Your task to perform on an android device: find photos in the google photos app Image 0: 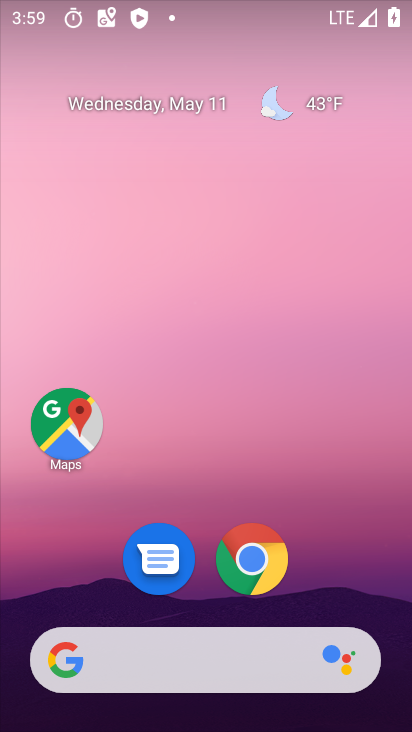
Step 0: drag from (330, 540) to (274, 64)
Your task to perform on an android device: find photos in the google photos app Image 1: 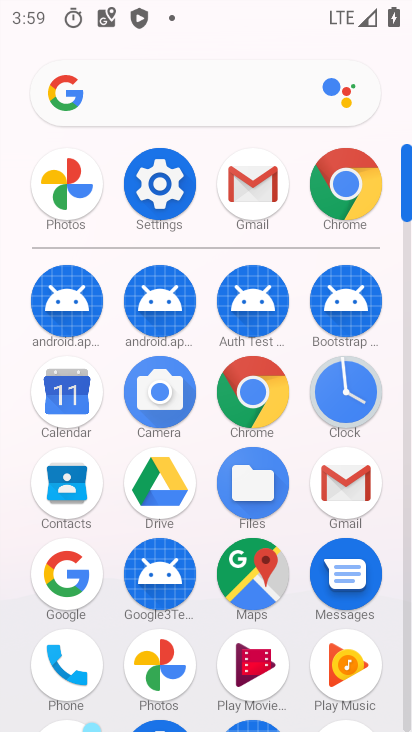
Step 1: click (176, 655)
Your task to perform on an android device: find photos in the google photos app Image 2: 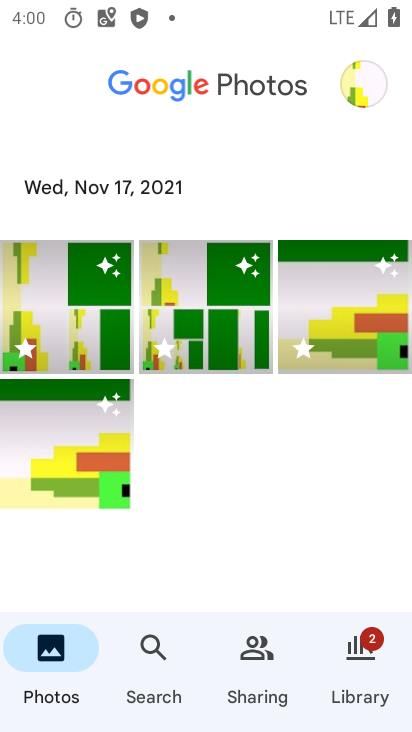
Step 2: task complete